Your task to perform on an android device: turn off airplane mode Image 0: 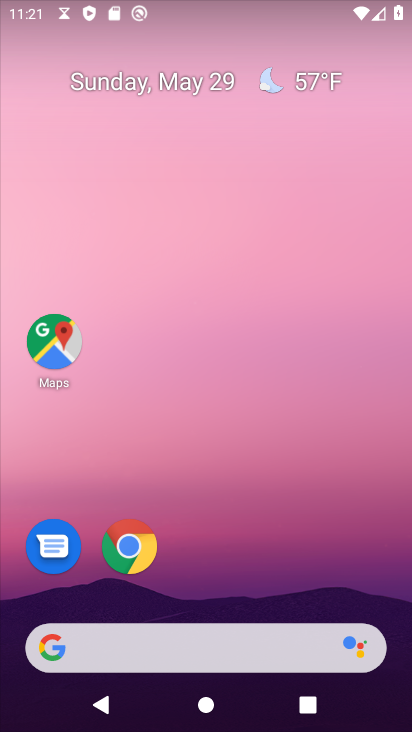
Step 0: press home button
Your task to perform on an android device: turn off airplane mode Image 1: 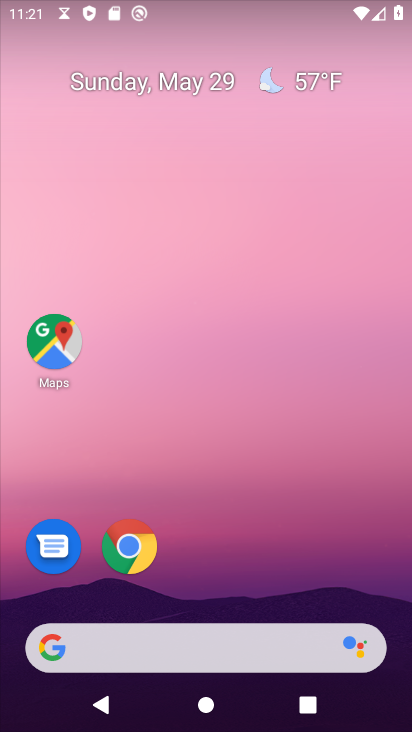
Step 1: drag from (219, 574) to (338, 205)
Your task to perform on an android device: turn off airplane mode Image 2: 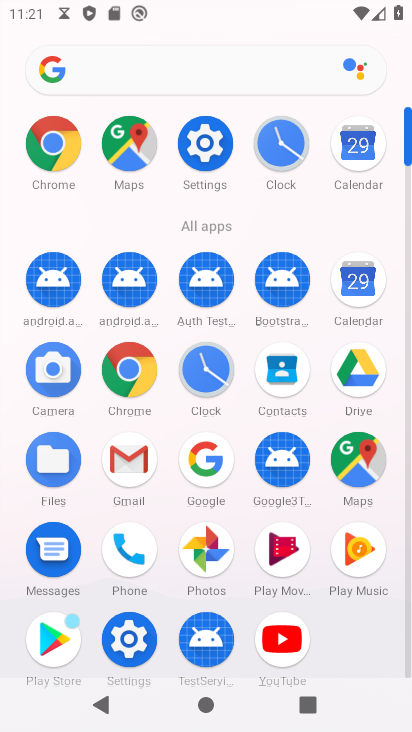
Step 2: click (199, 145)
Your task to perform on an android device: turn off airplane mode Image 3: 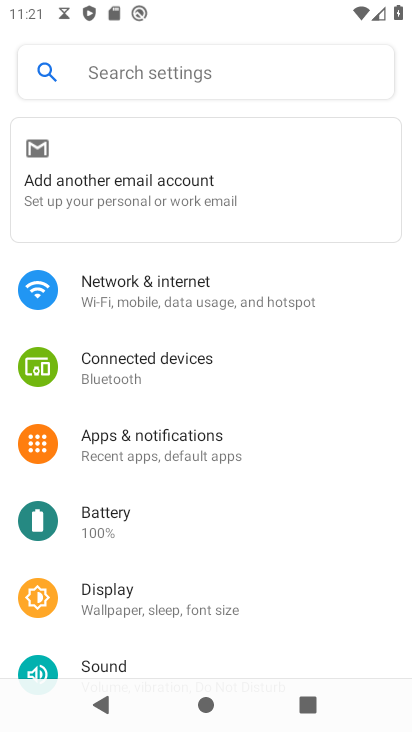
Step 3: click (170, 272)
Your task to perform on an android device: turn off airplane mode Image 4: 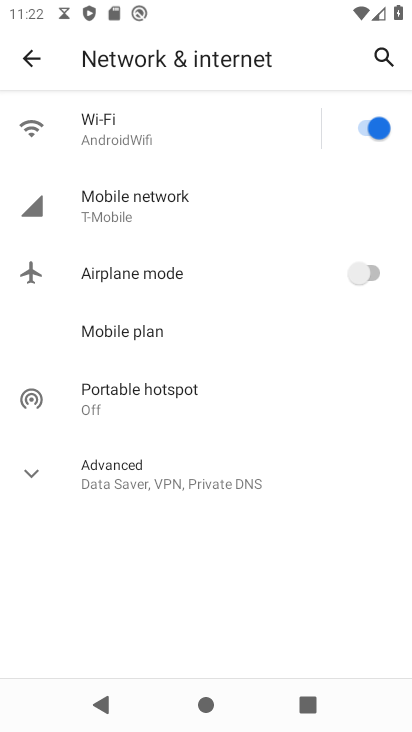
Step 4: task complete